Your task to perform on an android device: all mails in gmail Image 0: 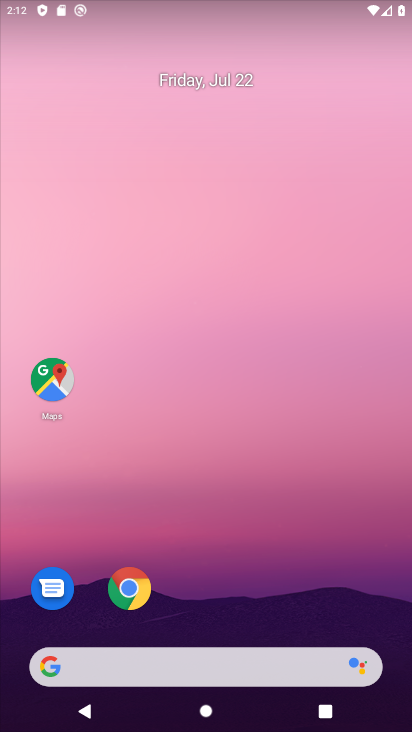
Step 0: press home button
Your task to perform on an android device: all mails in gmail Image 1: 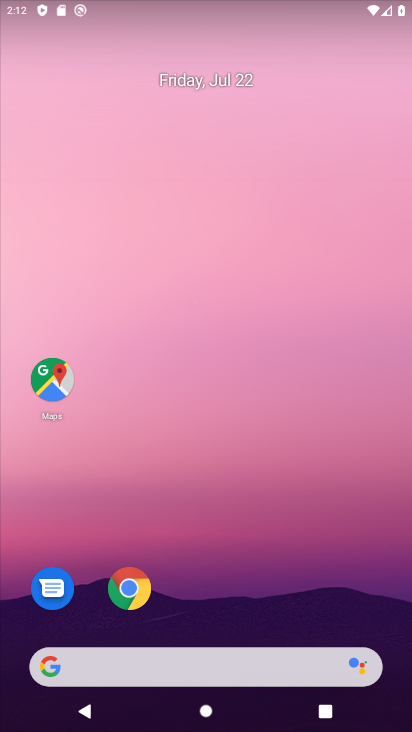
Step 1: drag from (209, 620) to (231, 34)
Your task to perform on an android device: all mails in gmail Image 2: 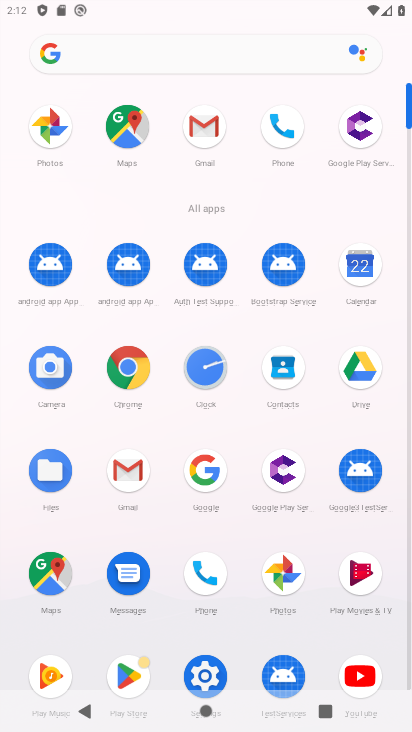
Step 2: click (194, 115)
Your task to perform on an android device: all mails in gmail Image 3: 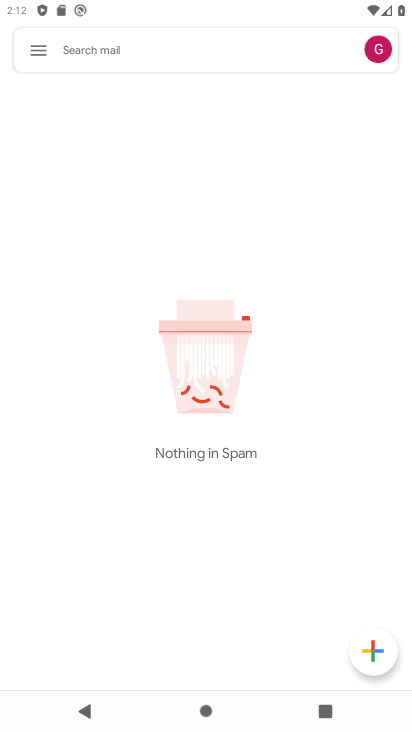
Step 3: click (34, 52)
Your task to perform on an android device: all mails in gmail Image 4: 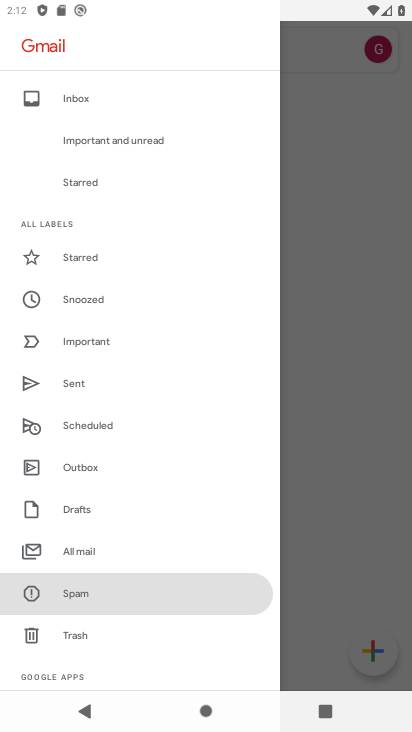
Step 4: click (88, 548)
Your task to perform on an android device: all mails in gmail Image 5: 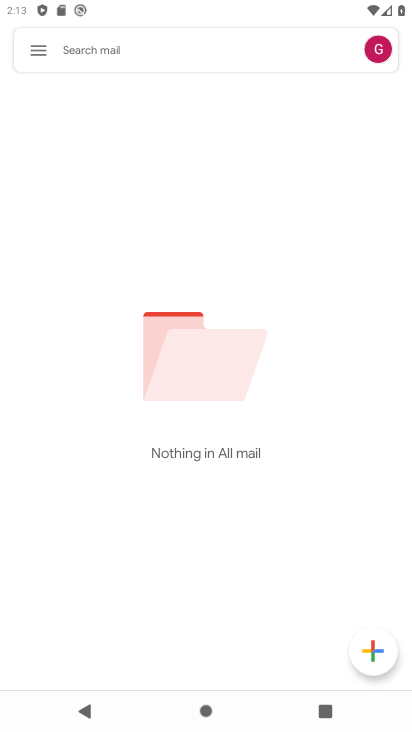
Step 5: task complete